Your task to perform on an android device: make emails show in primary in the gmail app Image 0: 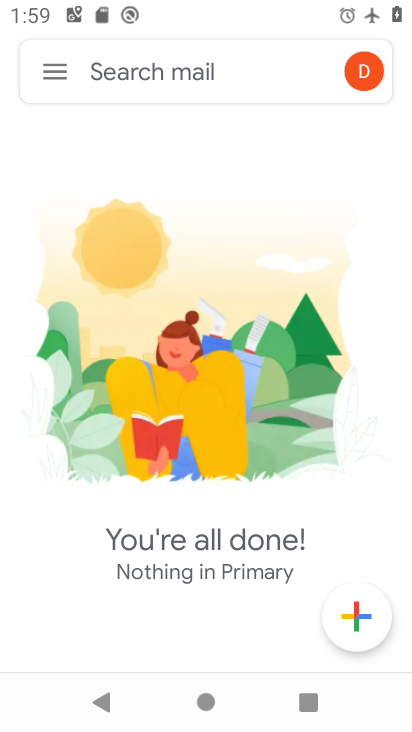
Step 0: click (58, 81)
Your task to perform on an android device: make emails show in primary in the gmail app Image 1: 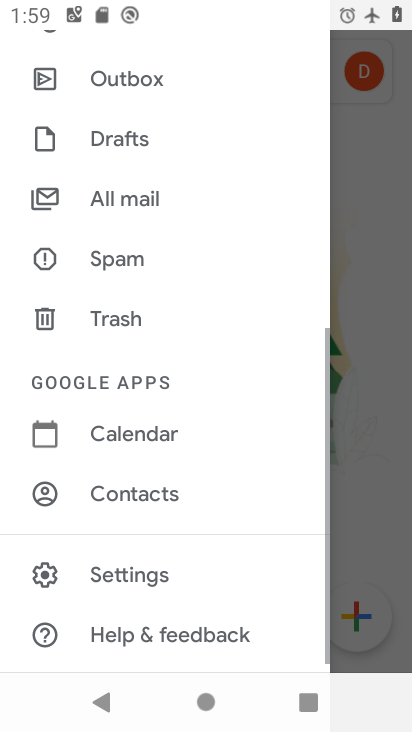
Step 1: click (133, 582)
Your task to perform on an android device: make emails show in primary in the gmail app Image 2: 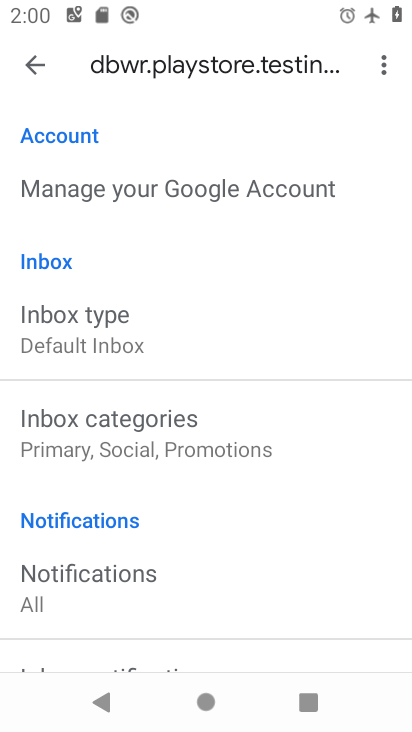
Step 2: click (116, 435)
Your task to perform on an android device: make emails show in primary in the gmail app Image 3: 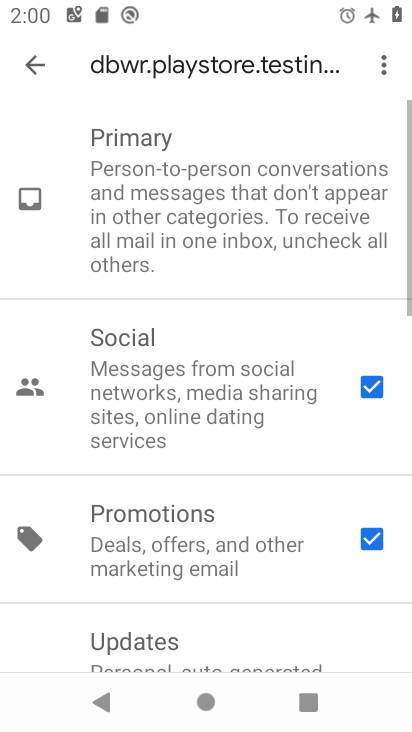
Step 3: click (378, 381)
Your task to perform on an android device: make emails show in primary in the gmail app Image 4: 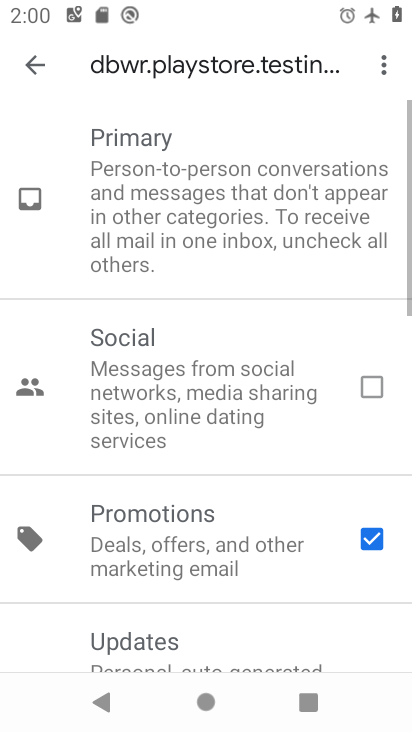
Step 4: click (364, 534)
Your task to perform on an android device: make emails show in primary in the gmail app Image 5: 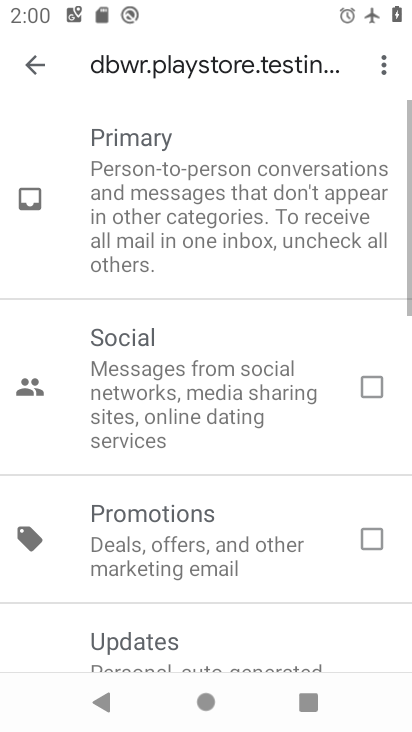
Step 5: task complete